Your task to perform on an android device: Search for seafood restaurants on Google Maps Image 0: 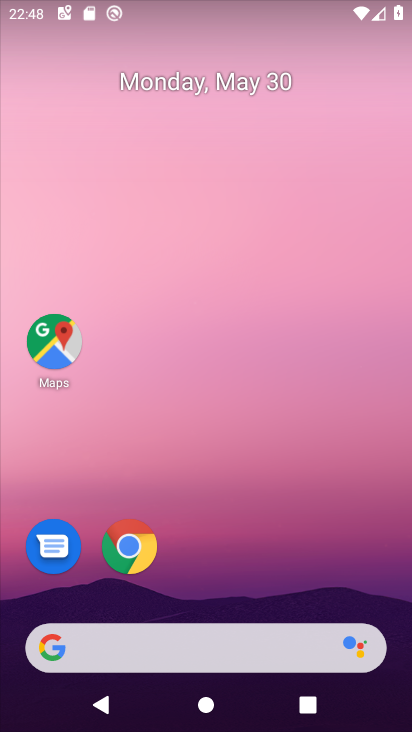
Step 0: click (61, 328)
Your task to perform on an android device: Search for seafood restaurants on Google Maps Image 1: 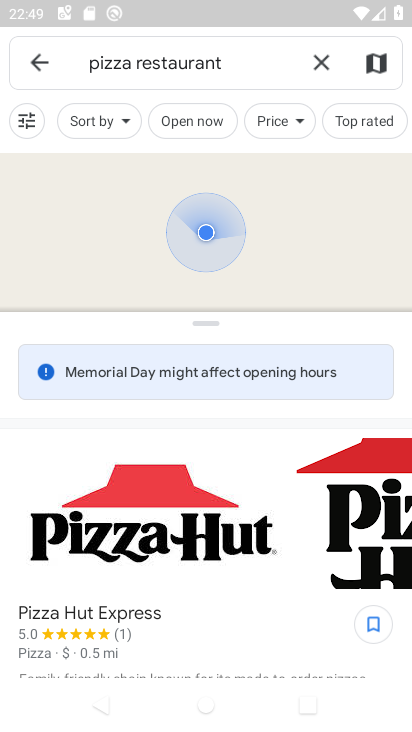
Step 1: click (108, 58)
Your task to perform on an android device: Search for seafood restaurants on Google Maps Image 2: 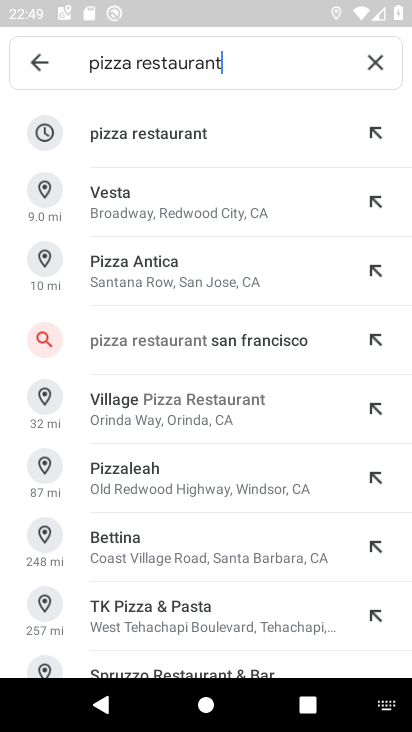
Step 2: click (111, 56)
Your task to perform on an android device: Search for seafood restaurants on Google Maps Image 3: 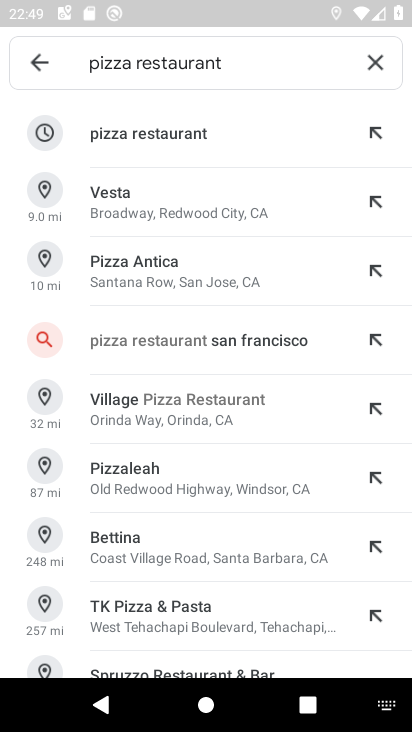
Step 3: click (105, 62)
Your task to perform on an android device: Search for seafood restaurants on Google Maps Image 4: 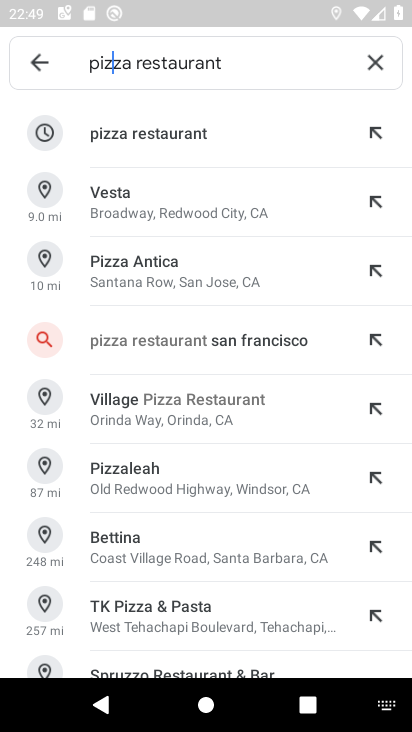
Step 4: click (102, 61)
Your task to perform on an android device: Search for seafood restaurants on Google Maps Image 5: 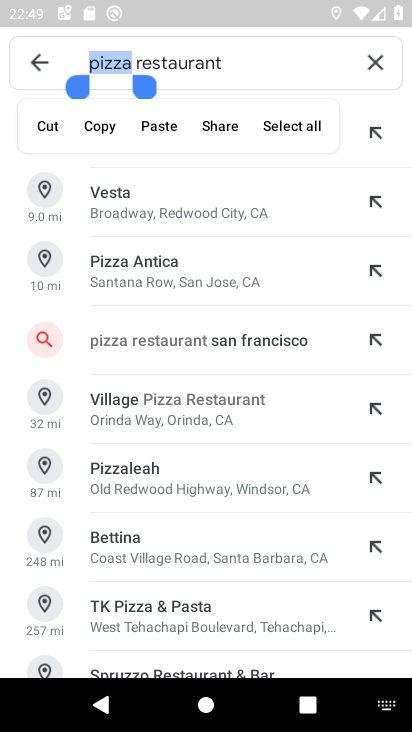
Step 5: type "seafood"
Your task to perform on an android device: Search for seafood restaurants on Google Maps Image 6: 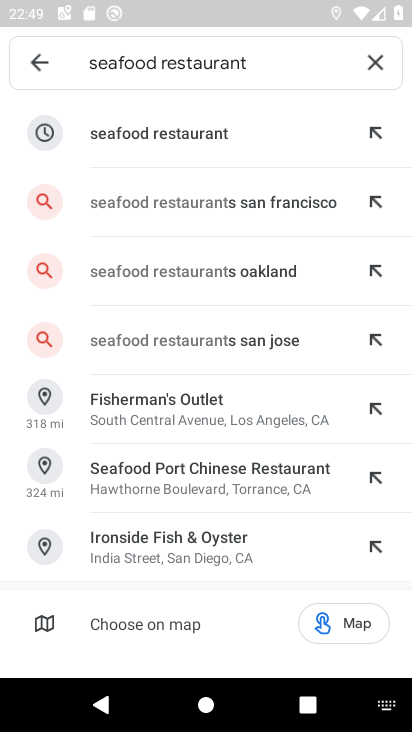
Step 6: click (200, 114)
Your task to perform on an android device: Search for seafood restaurants on Google Maps Image 7: 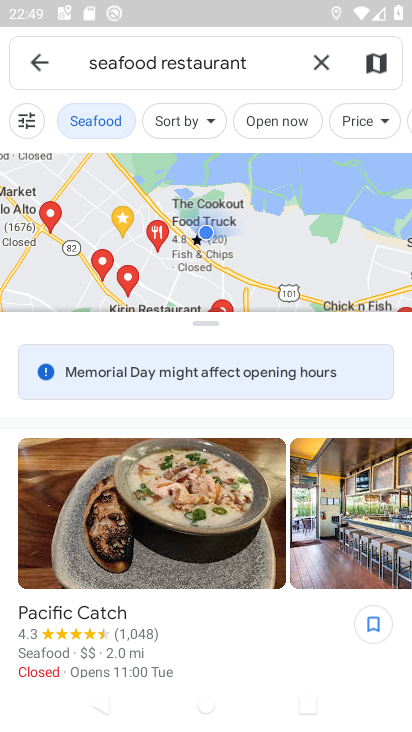
Step 7: task complete